Your task to perform on an android device: open chrome and create a bookmark for the current page Image 0: 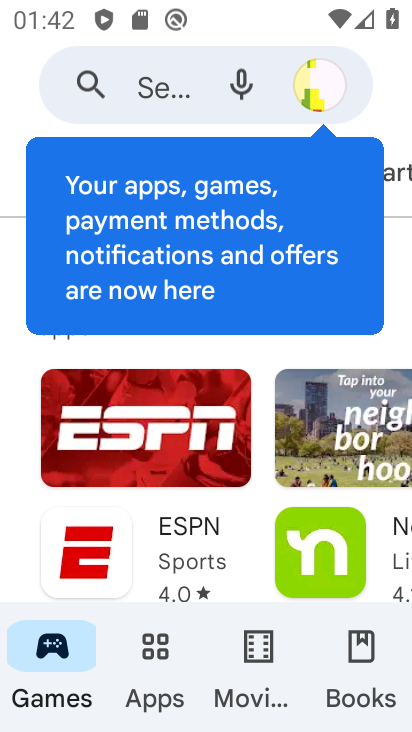
Step 0: press home button
Your task to perform on an android device: open chrome and create a bookmark for the current page Image 1: 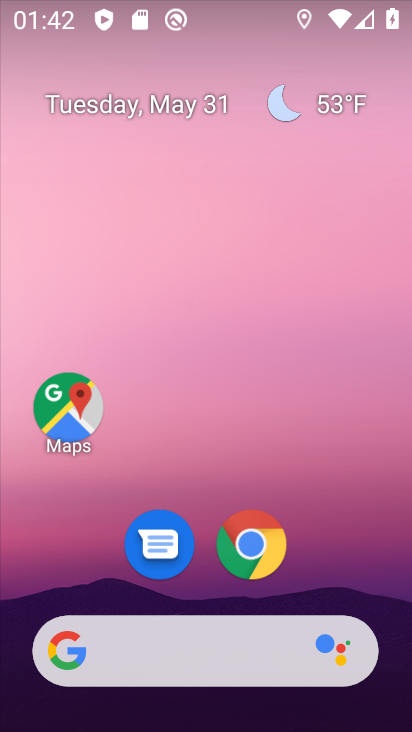
Step 1: click (261, 557)
Your task to perform on an android device: open chrome and create a bookmark for the current page Image 2: 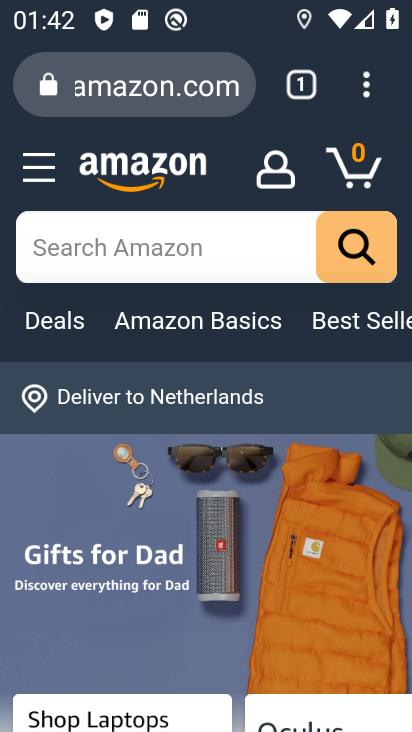
Step 2: click (373, 96)
Your task to perform on an android device: open chrome and create a bookmark for the current page Image 3: 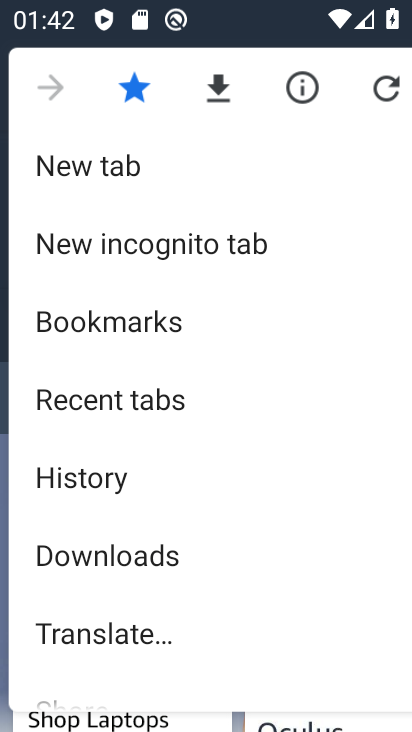
Step 3: task complete